Your task to perform on an android device: turn off javascript in the chrome app Image 0: 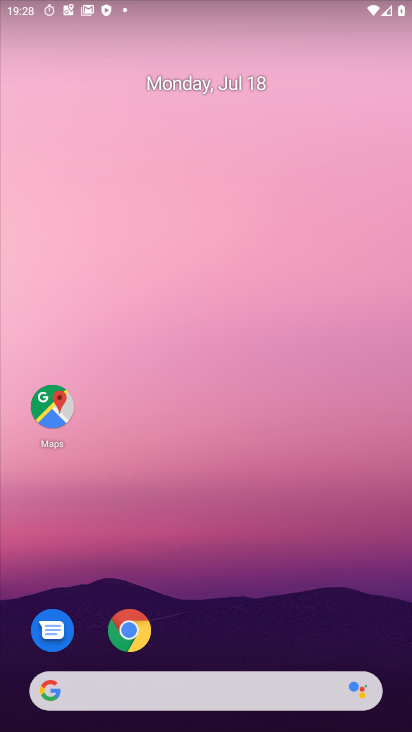
Step 0: drag from (172, 544) to (0, 178)
Your task to perform on an android device: turn off javascript in the chrome app Image 1: 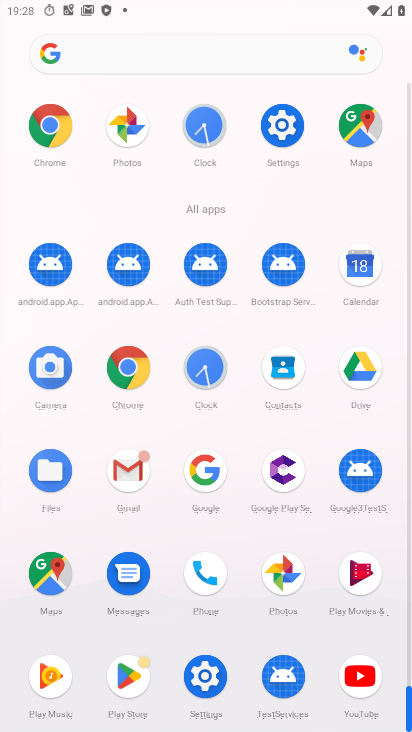
Step 1: click (50, 123)
Your task to perform on an android device: turn off javascript in the chrome app Image 2: 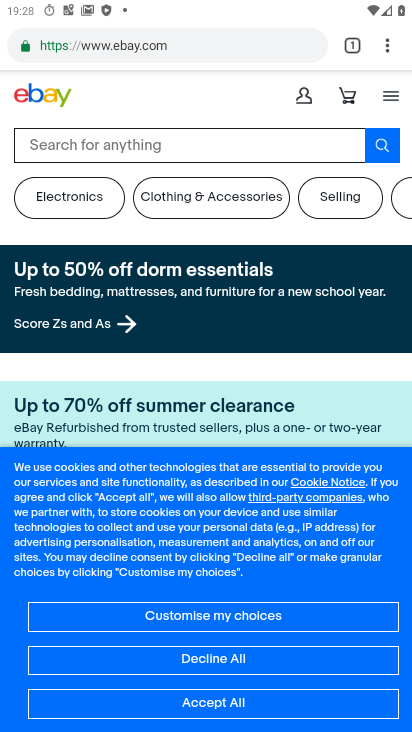
Step 2: drag from (389, 50) to (220, 534)
Your task to perform on an android device: turn off javascript in the chrome app Image 3: 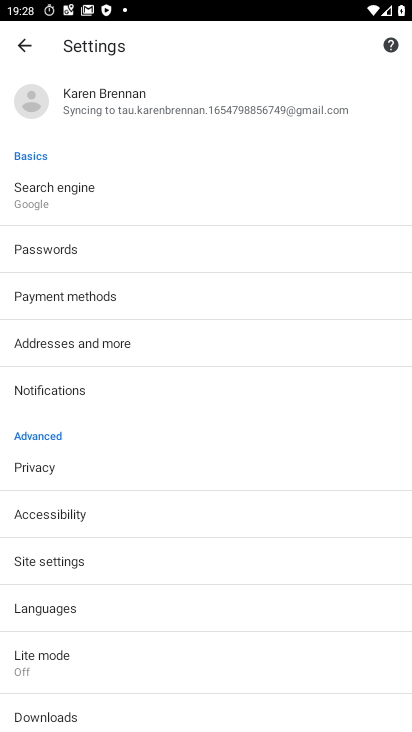
Step 3: click (54, 559)
Your task to perform on an android device: turn off javascript in the chrome app Image 4: 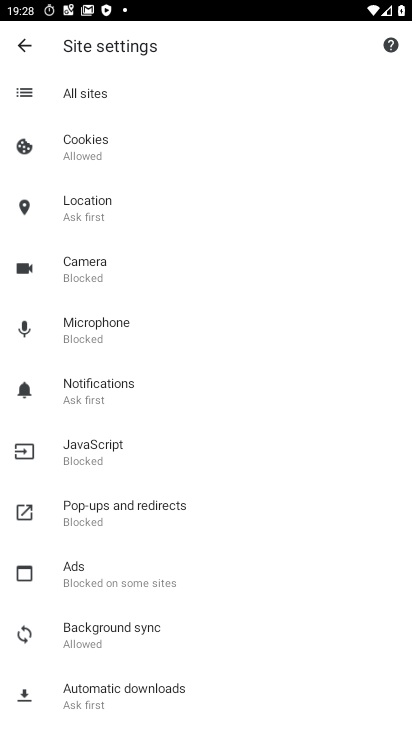
Step 4: click (97, 455)
Your task to perform on an android device: turn off javascript in the chrome app Image 5: 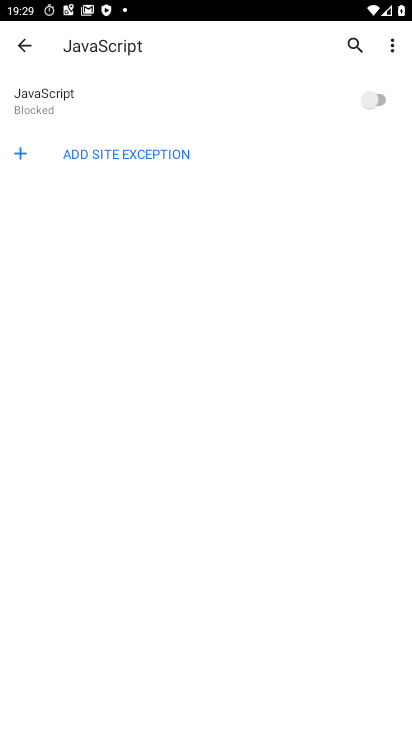
Step 5: task complete